Your task to perform on an android device: uninstall "HBO Max: Stream TV & Movies" Image 0: 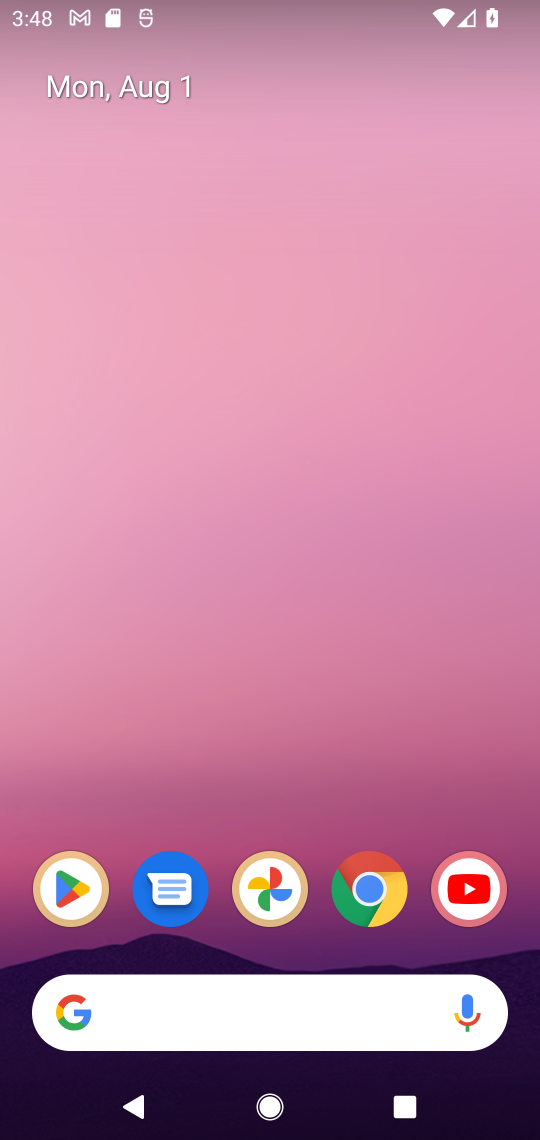
Step 0: click (64, 908)
Your task to perform on an android device: uninstall "HBO Max: Stream TV & Movies" Image 1: 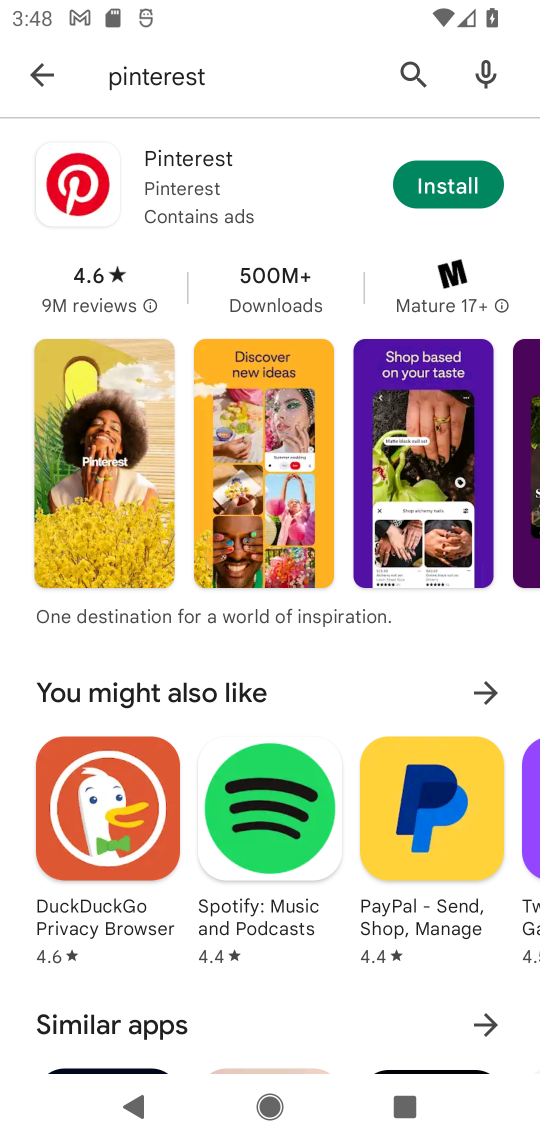
Step 1: click (411, 77)
Your task to perform on an android device: uninstall "HBO Max: Stream TV & Movies" Image 2: 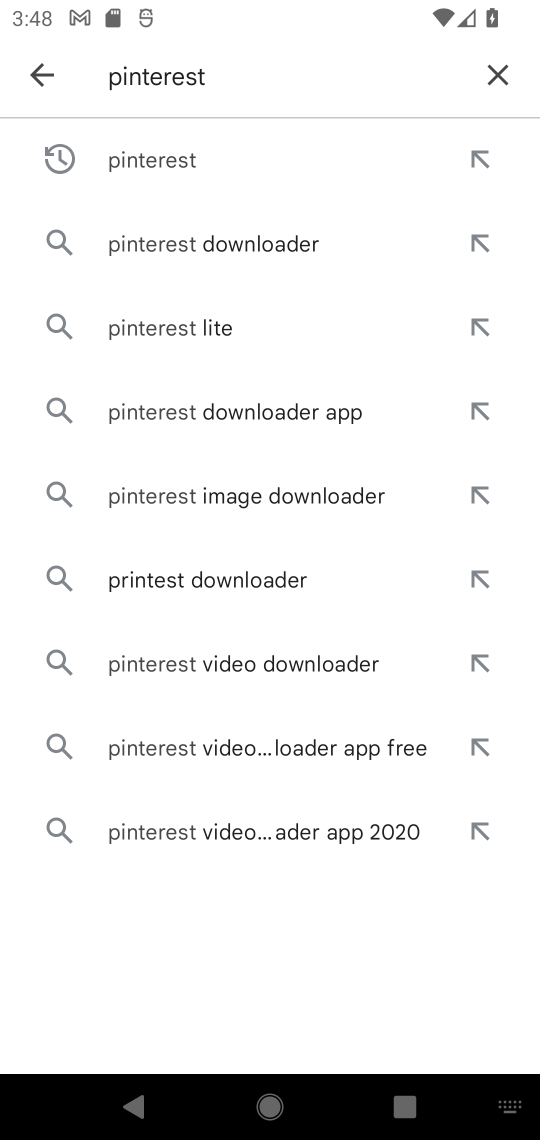
Step 2: click (495, 71)
Your task to perform on an android device: uninstall "HBO Max: Stream TV & Movies" Image 3: 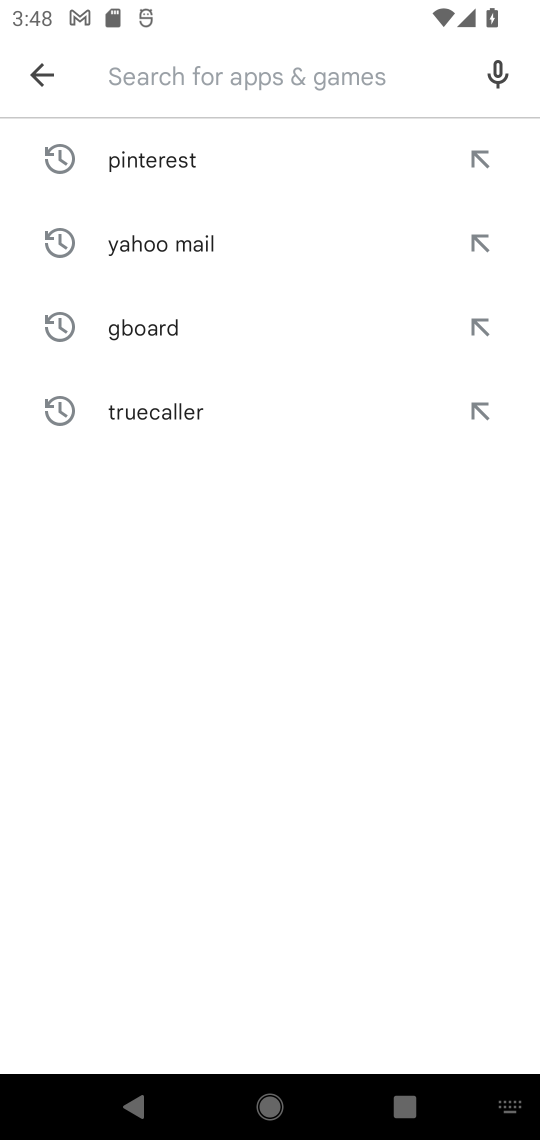
Step 3: type "HBO Max: Stream TV & Movies"
Your task to perform on an android device: uninstall "HBO Max: Stream TV & Movies" Image 4: 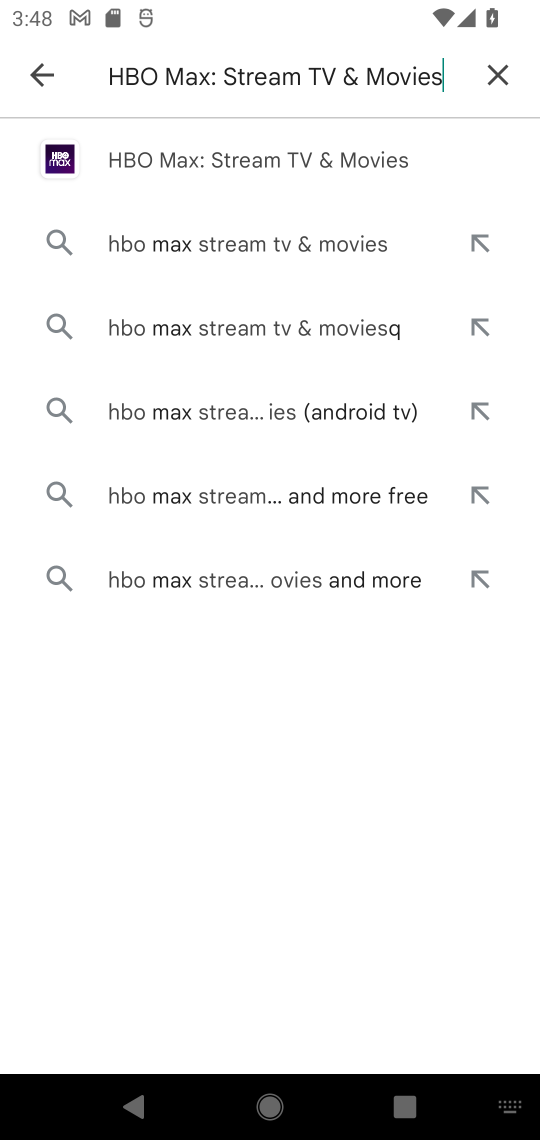
Step 4: click (223, 171)
Your task to perform on an android device: uninstall "HBO Max: Stream TV & Movies" Image 5: 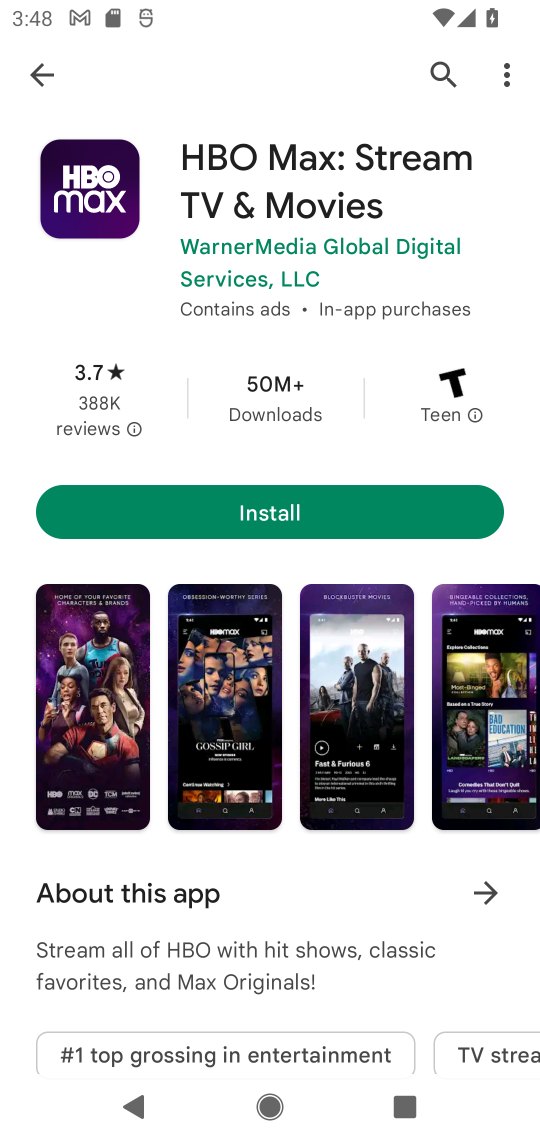
Step 5: task complete